Your task to perform on an android device: remove spam from my inbox in the gmail app Image 0: 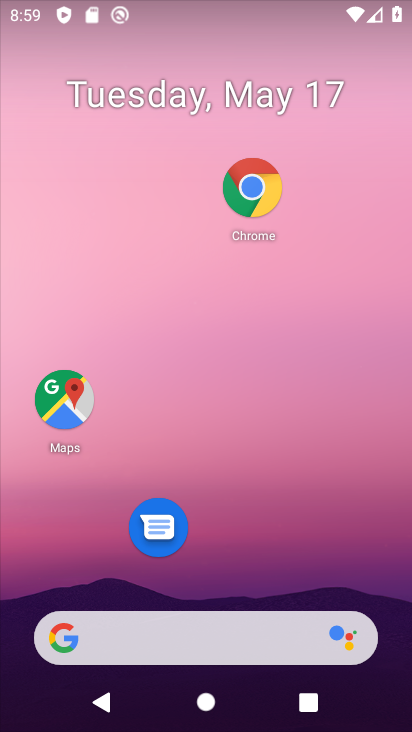
Step 0: drag from (336, 544) to (384, 80)
Your task to perform on an android device: remove spam from my inbox in the gmail app Image 1: 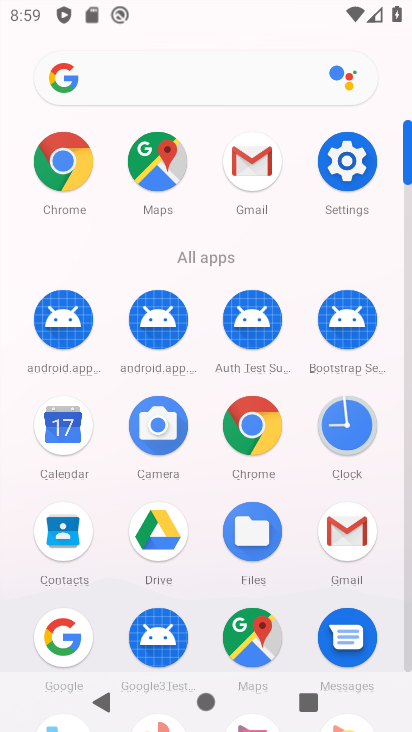
Step 1: click (333, 538)
Your task to perform on an android device: remove spam from my inbox in the gmail app Image 2: 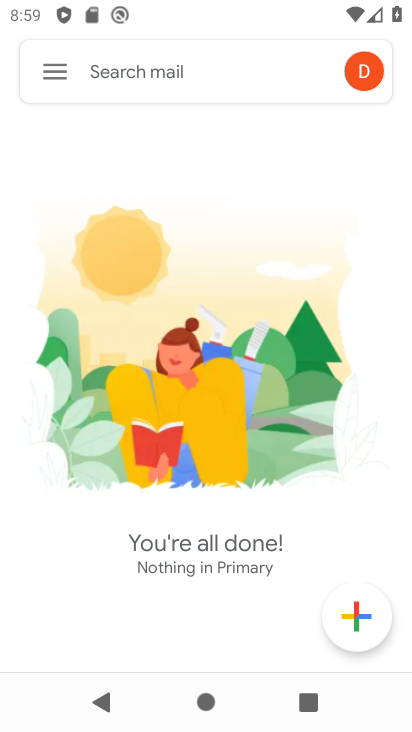
Step 2: click (62, 70)
Your task to perform on an android device: remove spam from my inbox in the gmail app Image 3: 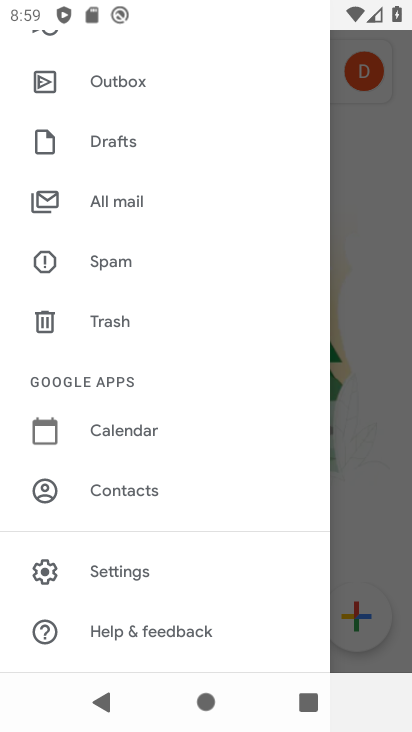
Step 3: click (146, 260)
Your task to perform on an android device: remove spam from my inbox in the gmail app Image 4: 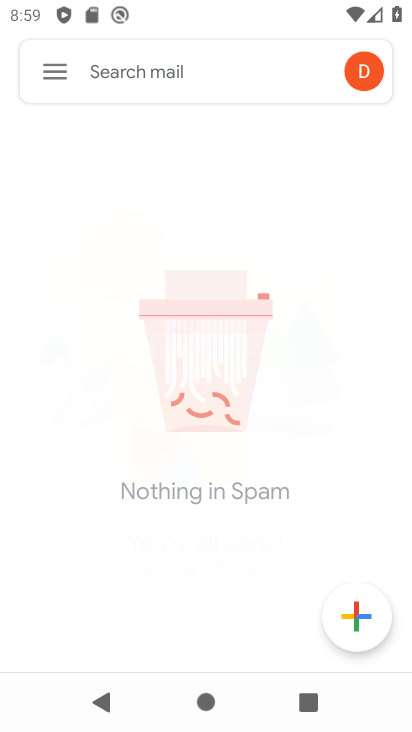
Step 4: task complete